Your task to perform on an android device: Show me recent news Image 0: 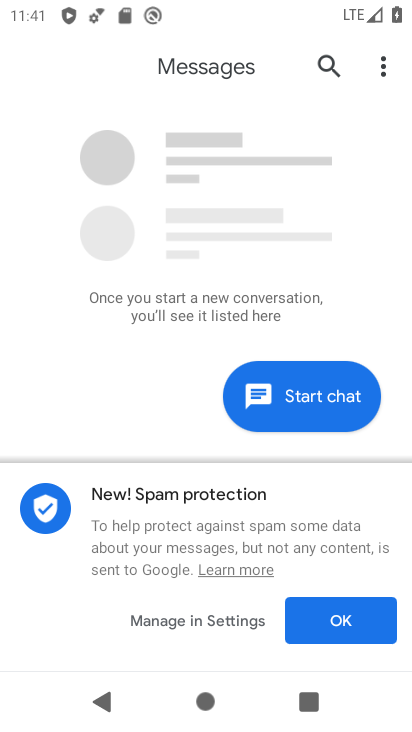
Step 0: press home button
Your task to perform on an android device: Show me recent news Image 1: 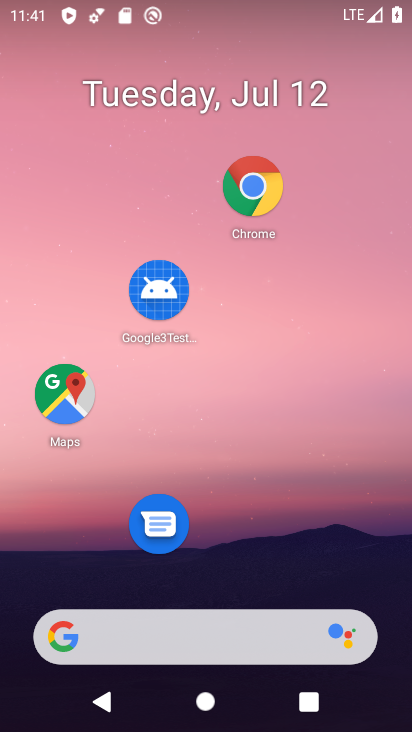
Step 1: task complete